Your task to perform on an android device: Turn on the flashlight Image 0: 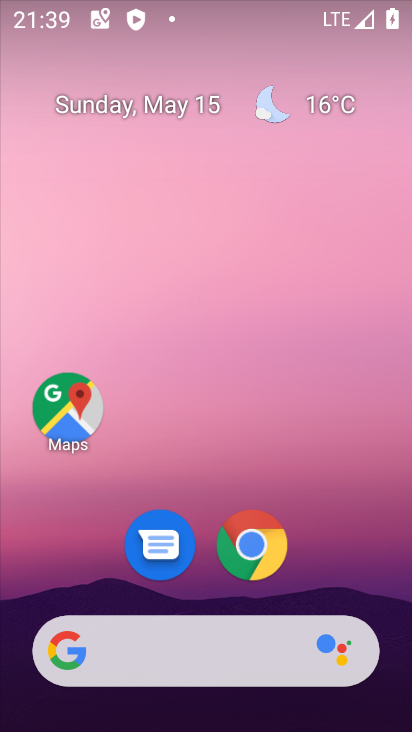
Step 0: drag from (341, 534) to (179, 166)
Your task to perform on an android device: Turn on the flashlight Image 1: 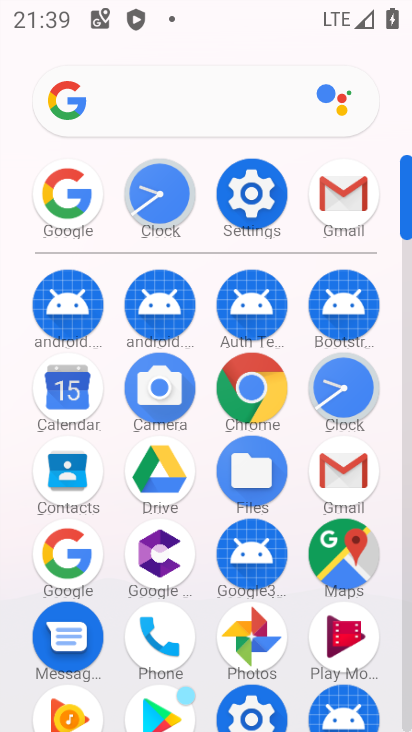
Step 1: click (251, 193)
Your task to perform on an android device: Turn on the flashlight Image 2: 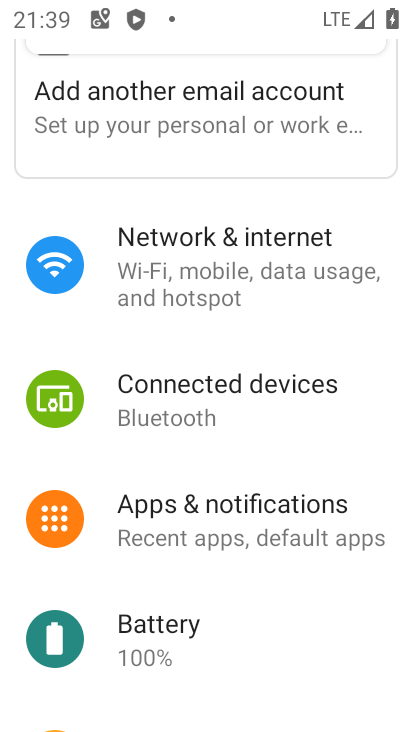
Step 2: drag from (215, 547) to (291, 364)
Your task to perform on an android device: Turn on the flashlight Image 3: 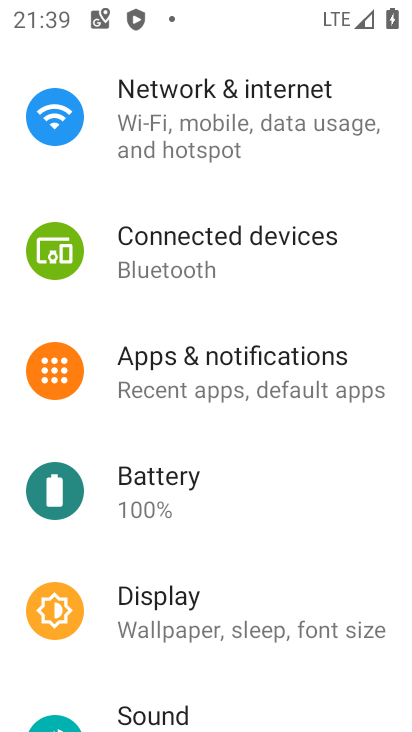
Step 3: drag from (252, 556) to (305, 415)
Your task to perform on an android device: Turn on the flashlight Image 4: 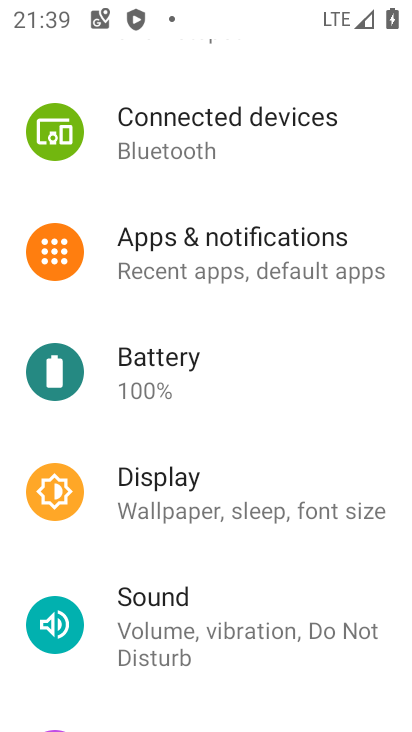
Step 4: click (253, 514)
Your task to perform on an android device: Turn on the flashlight Image 5: 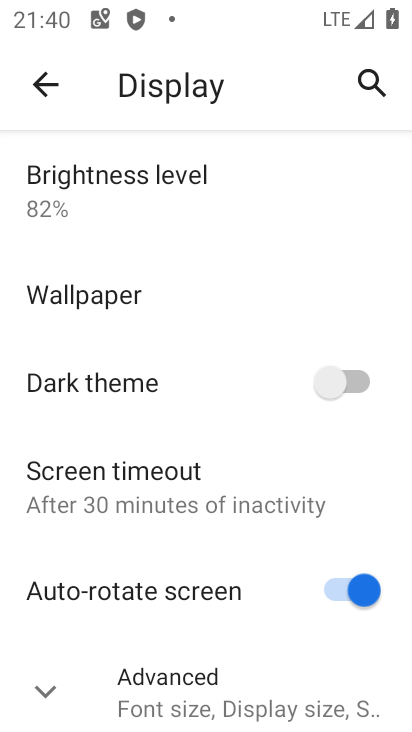
Step 5: drag from (173, 449) to (144, 372)
Your task to perform on an android device: Turn on the flashlight Image 6: 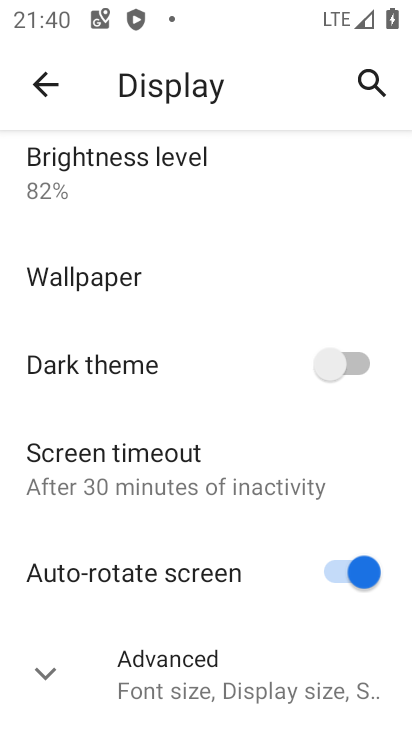
Step 6: drag from (99, 552) to (118, 409)
Your task to perform on an android device: Turn on the flashlight Image 7: 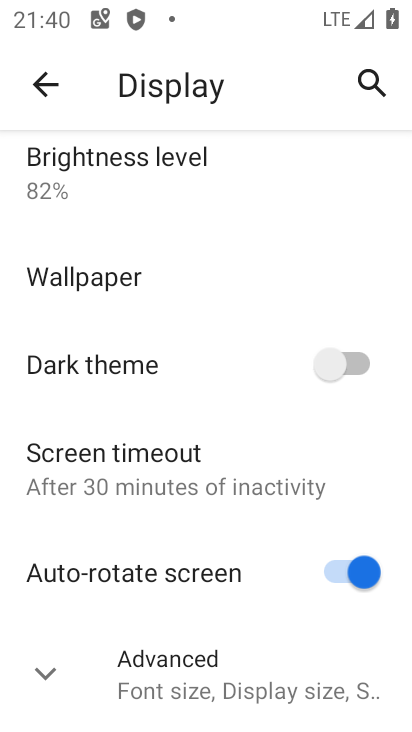
Step 7: press back button
Your task to perform on an android device: Turn on the flashlight Image 8: 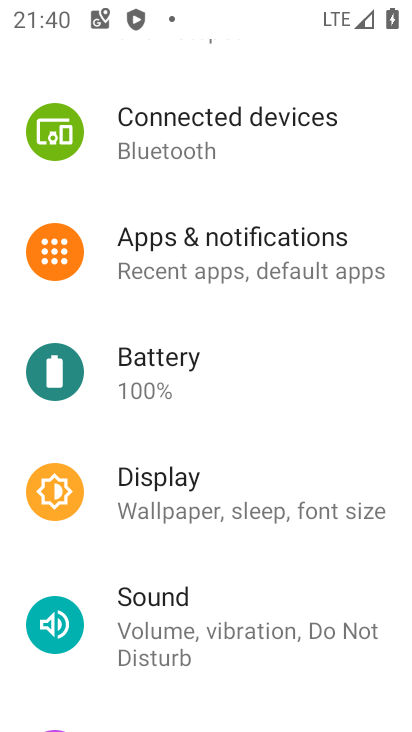
Step 8: drag from (243, 579) to (276, 440)
Your task to perform on an android device: Turn on the flashlight Image 9: 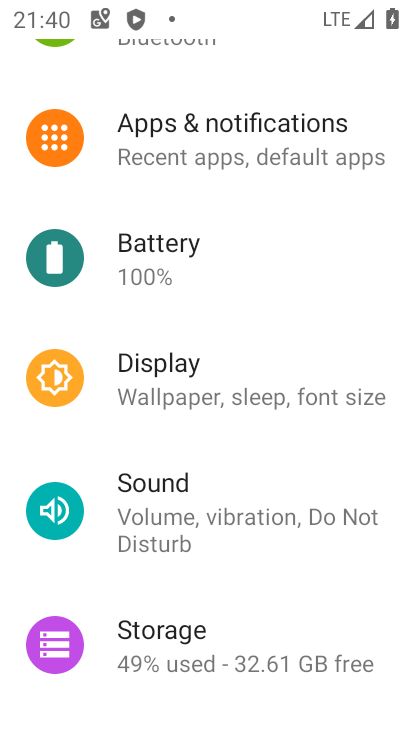
Step 9: click (212, 514)
Your task to perform on an android device: Turn on the flashlight Image 10: 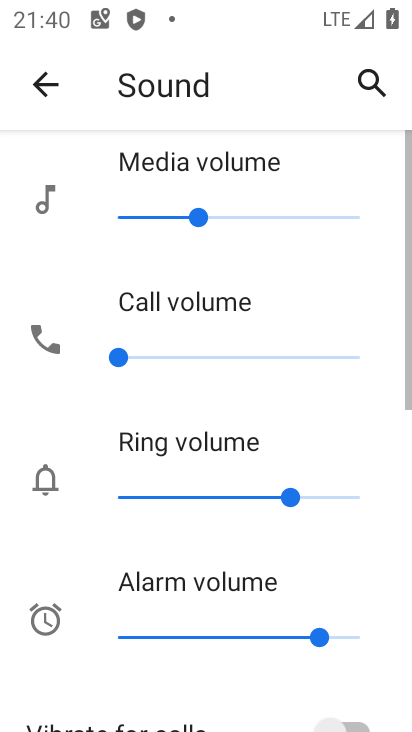
Step 10: drag from (222, 535) to (212, 415)
Your task to perform on an android device: Turn on the flashlight Image 11: 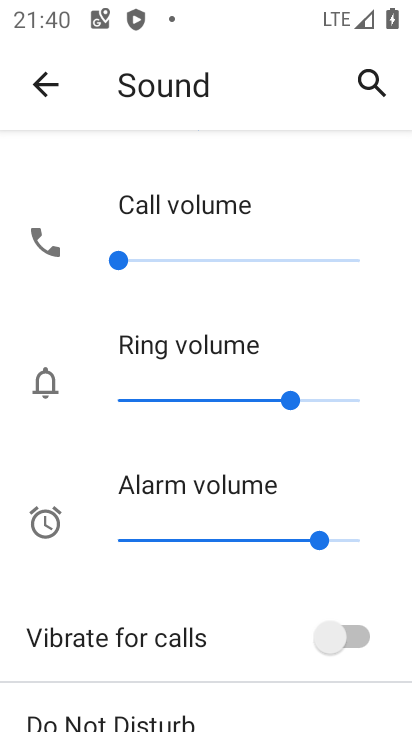
Step 11: drag from (172, 592) to (209, 489)
Your task to perform on an android device: Turn on the flashlight Image 12: 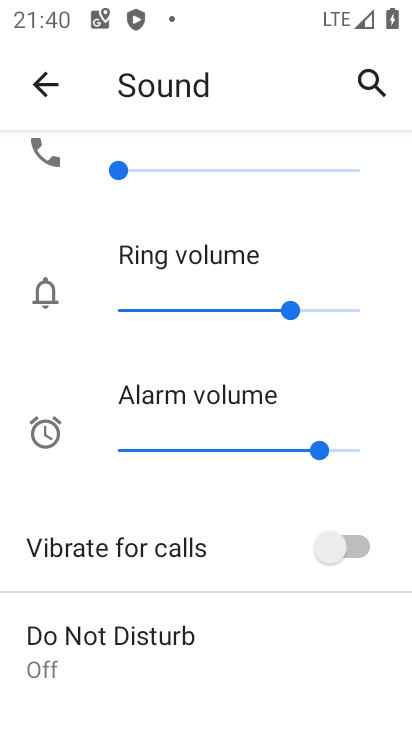
Step 12: drag from (132, 671) to (171, 541)
Your task to perform on an android device: Turn on the flashlight Image 13: 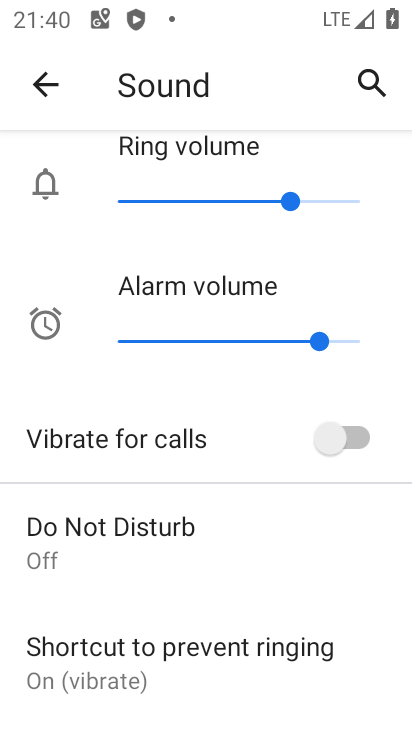
Step 13: drag from (170, 696) to (221, 556)
Your task to perform on an android device: Turn on the flashlight Image 14: 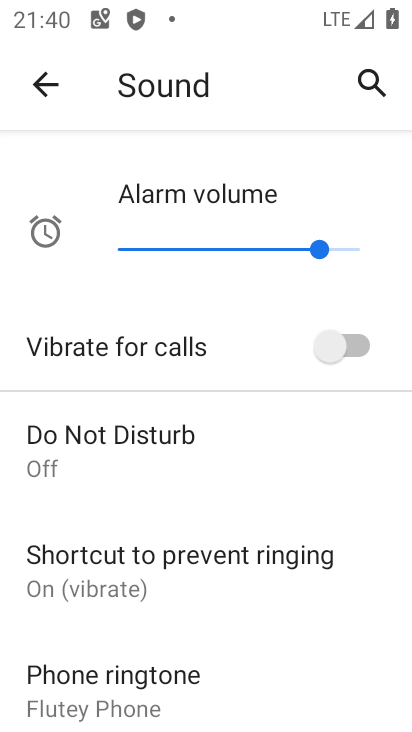
Step 14: drag from (258, 585) to (259, 524)
Your task to perform on an android device: Turn on the flashlight Image 15: 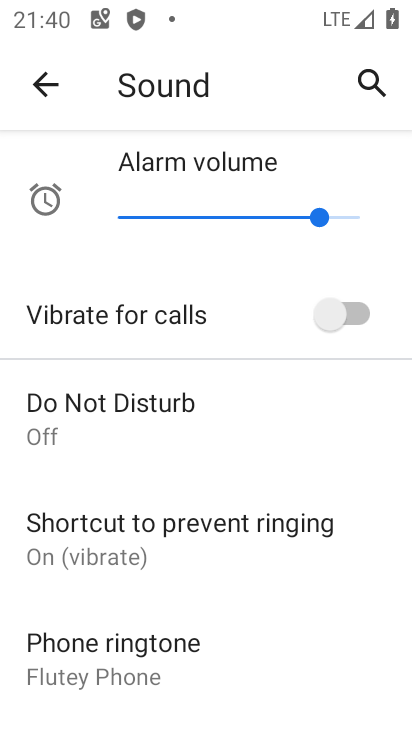
Step 15: drag from (240, 570) to (267, 386)
Your task to perform on an android device: Turn on the flashlight Image 16: 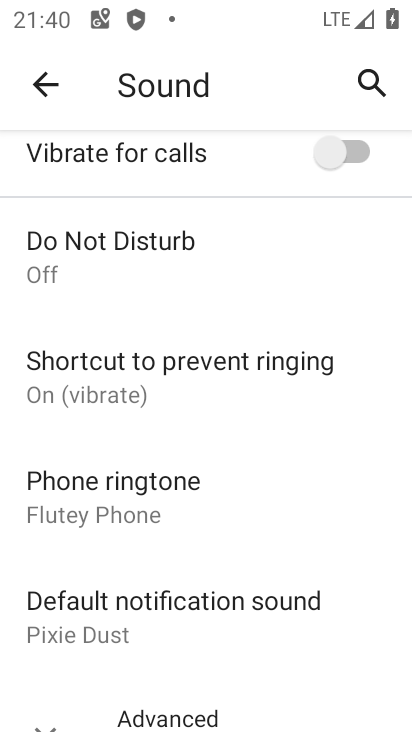
Step 16: drag from (143, 539) to (198, 406)
Your task to perform on an android device: Turn on the flashlight Image 17: 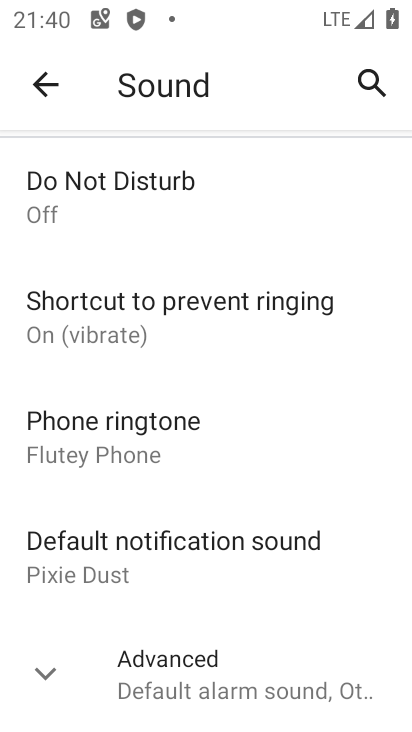
Step 17: click (181, 650)
Your task to perform on an android device: Turn on the flashlight Image 18: 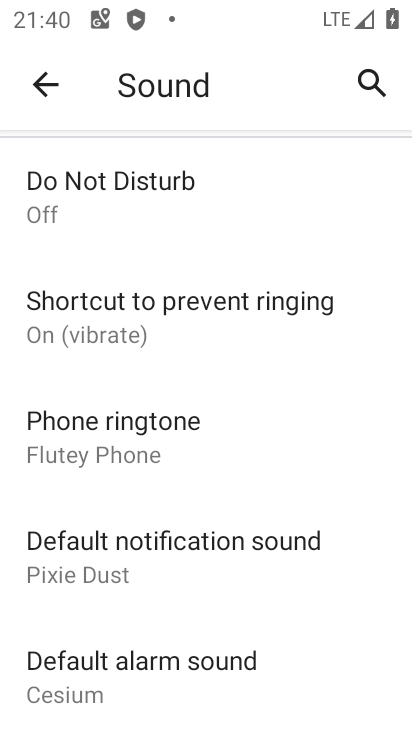
Step 18: task complete